Your task to perform on an android device: Search for macbook air on target.com, select the first entry, add it to the cart, then select checkout. Image 0: 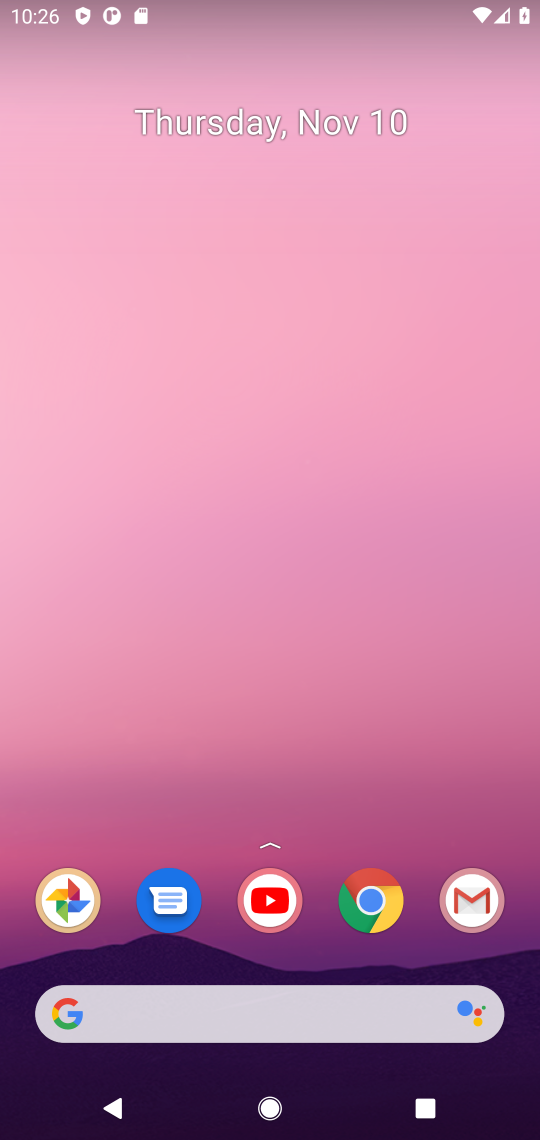
Step 0: click (365, 907)
Your task to perform on an android device: Search for macbook air on target.com, select the first entry, add it to the cart, then select checkout. Image 1: 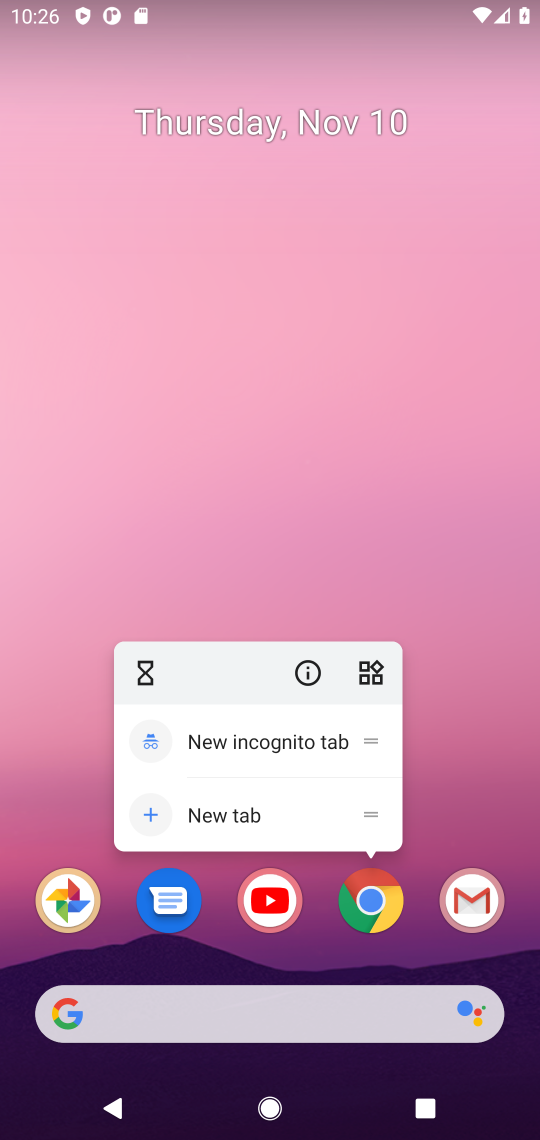
Step 1: click (365, 908)
Your task to perform on an android device: Search for macbook air on target.com, select the first entry, add it to the cart, then select checkout. Image 2: 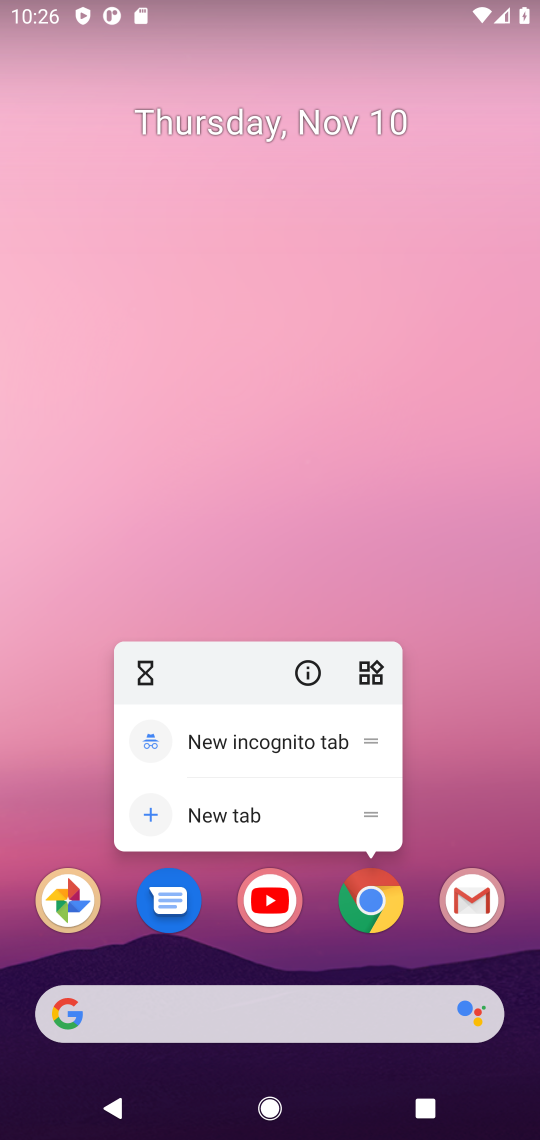
Step 2: click (373, 903)
Your task to perform on an android device: Search for macbook air on target.com, select the first entry, add it to the cart, then select checkout. Image 3: 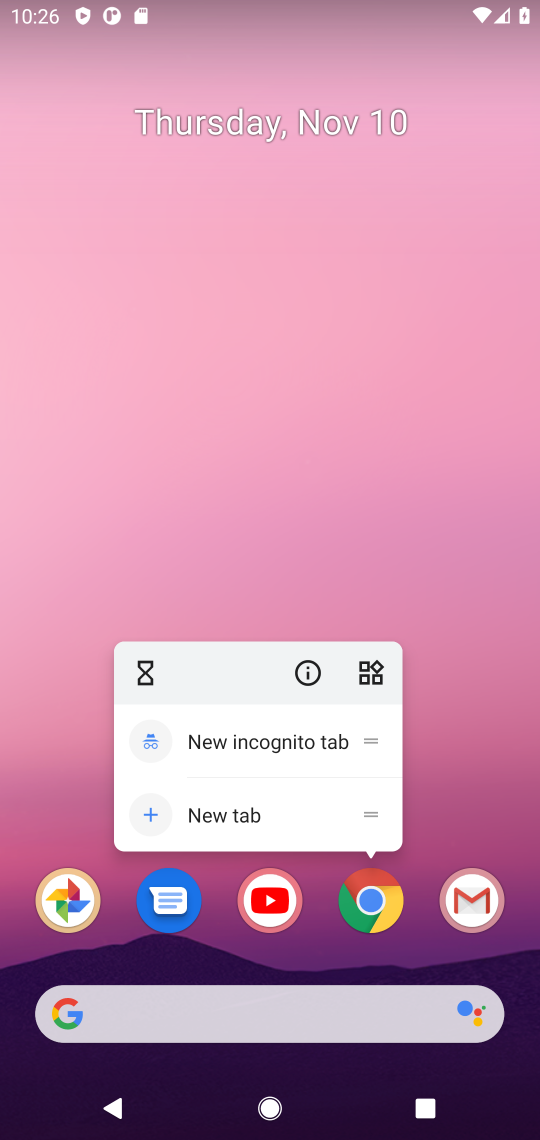
Step 3: click (373, 903)
Your task to perform on an android device: Search for macbook air on target.com, select the first entry, add it to the cart, then select checkout. Image 4: 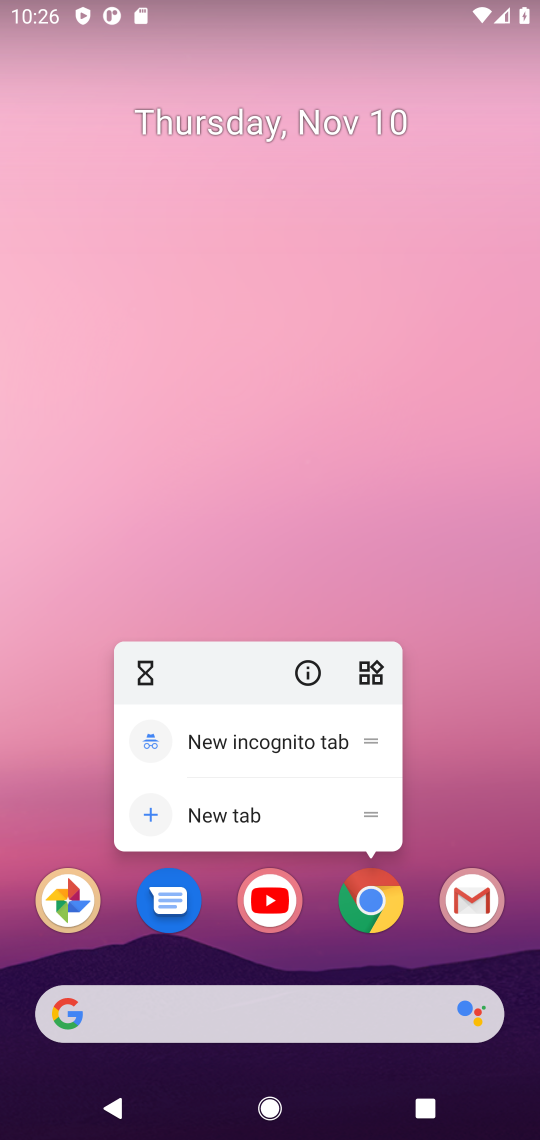
Step 4: click (368, 906)
Your task to perform on an android device: Search for macbook air on target.com, select the first entry, add it to the cart, then select checkout. Image 5: 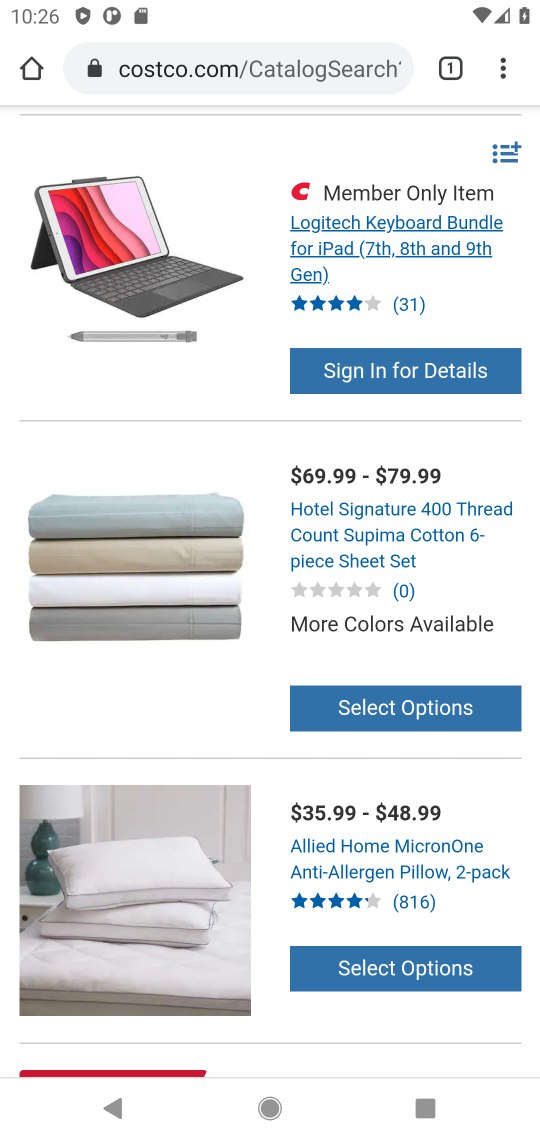
Step 5: click (343, 72)
Your task to perform on an android device: Search for macbook air on target.com, select the first entry, add it to the cart, then select checkout. Image 6: 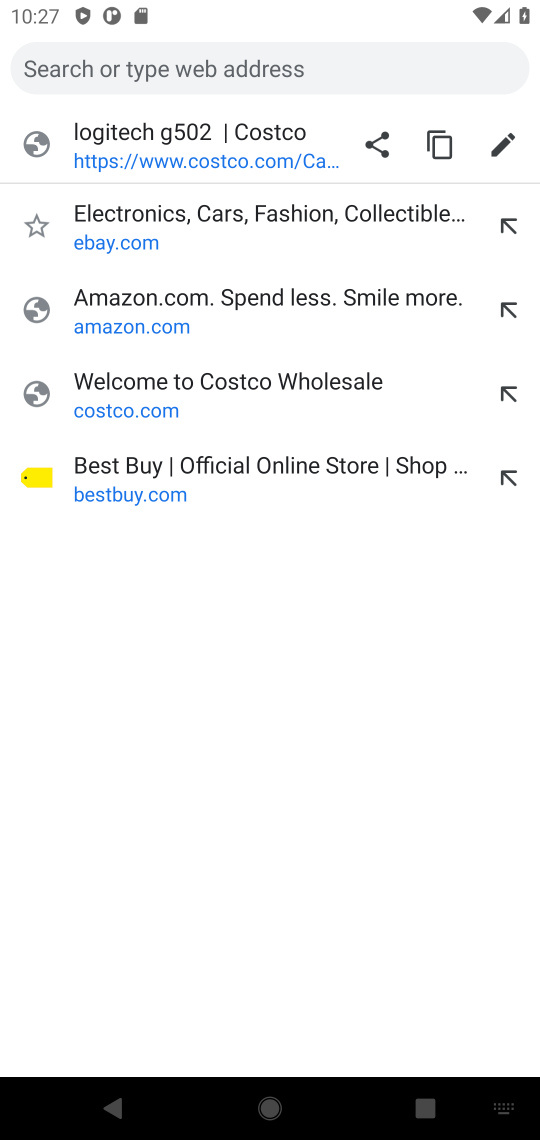
Step 6: type "target.com"
Your task to perform on an android device: Search for macbook air on target.com, select the first entry, add it to the cart, then select checkout. Image 7: 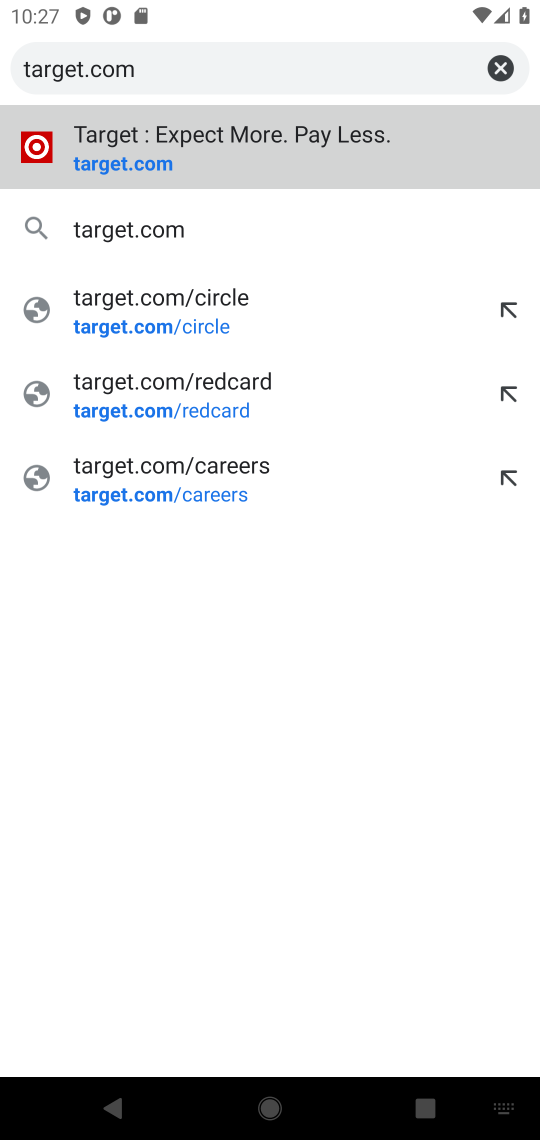
Step 7: press enter
Your task to perform on an android device: Search for macbook air on target.com, select the first entry, add it to the cart, then select checkout. Image 8: 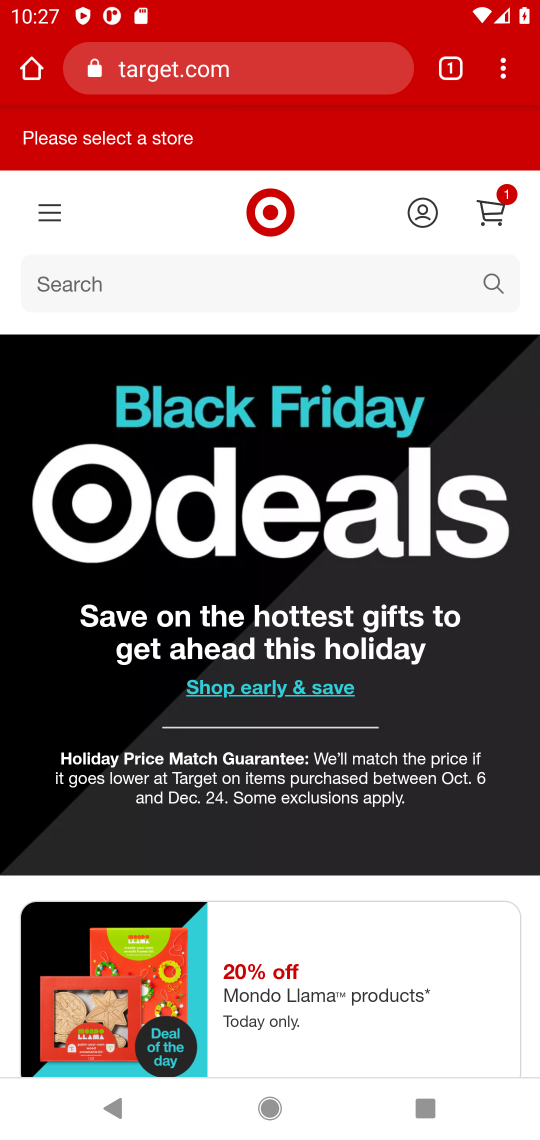
Step 8: click (170, 277)
Your task to perform on an android device: Search for macbook air on target.com, select the first entry, add it to the cart, then select checkout. Image 9: 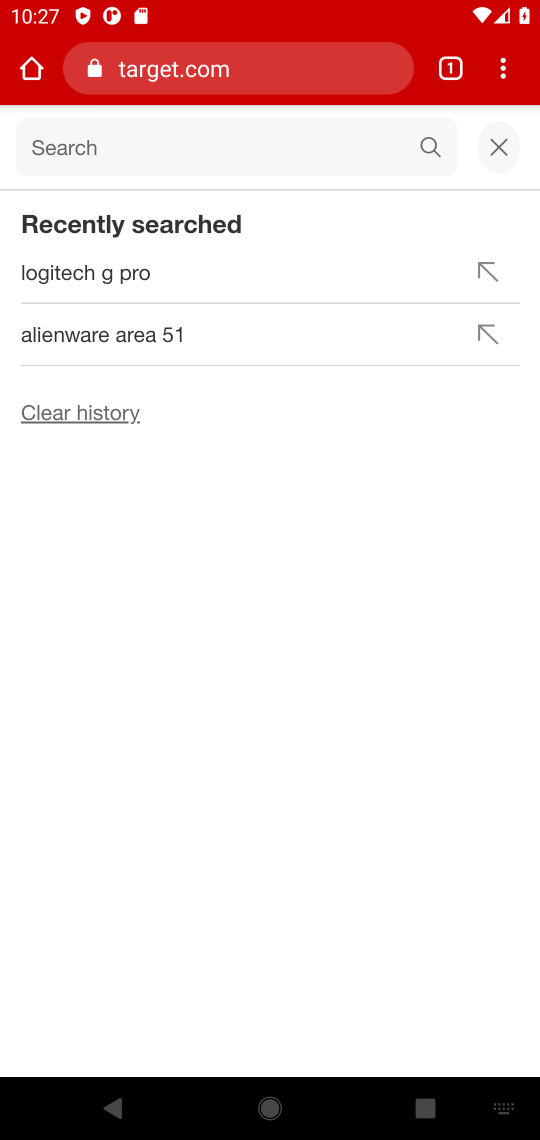
Step 9: type "macbook air"
Your task to perform on an android device: Search for macbook air on target.com, select the first entry, add it to the cart, then select checkout. Image 10: 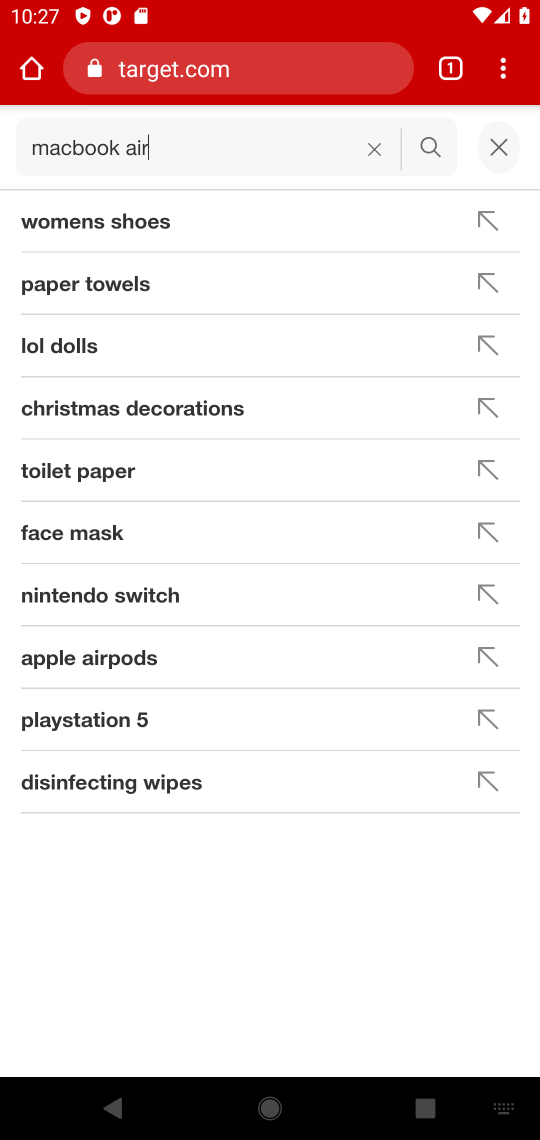
Step 10: press enter
Your task to perform on an android device: Search for macbook air on target.com, select the first entry, add it to the cart, then select checkout. Image 11: 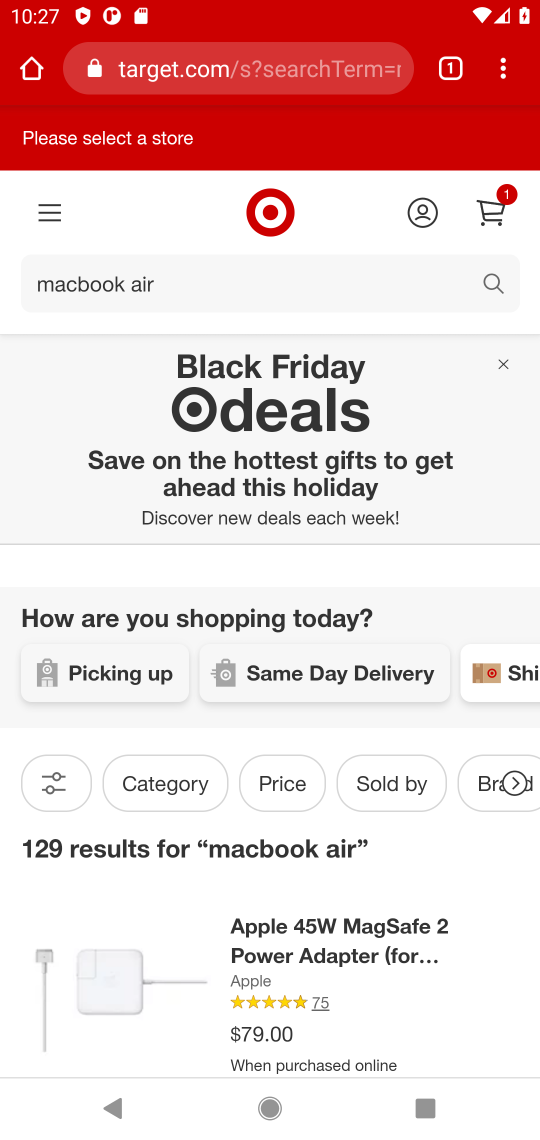
Step 11: task complete